Your task to perform on an android device: Go to settings Image 0: 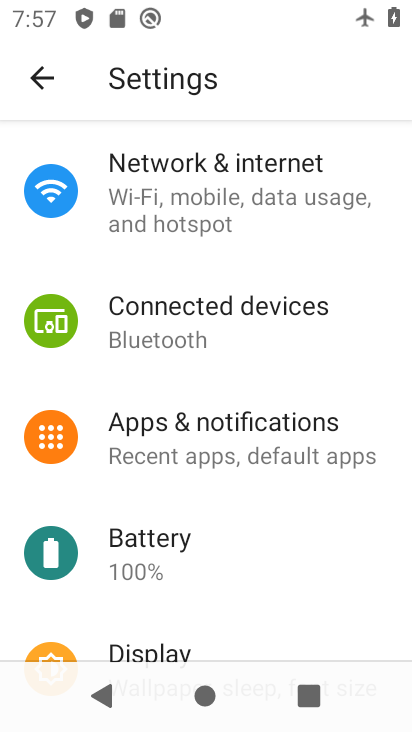
Step 0: task complete